Your task to perform on an android device: Go to wifi settings Image 0: 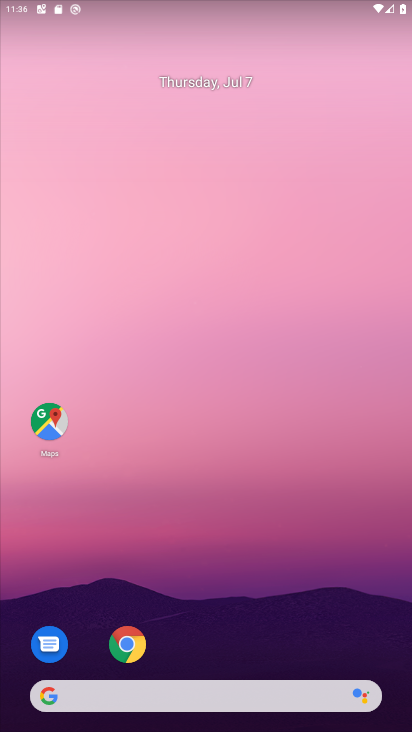
Step 0: drag from (34, 666) to (153, 30)
Your task to perform on an android device: Go to wifi settings Image 1: 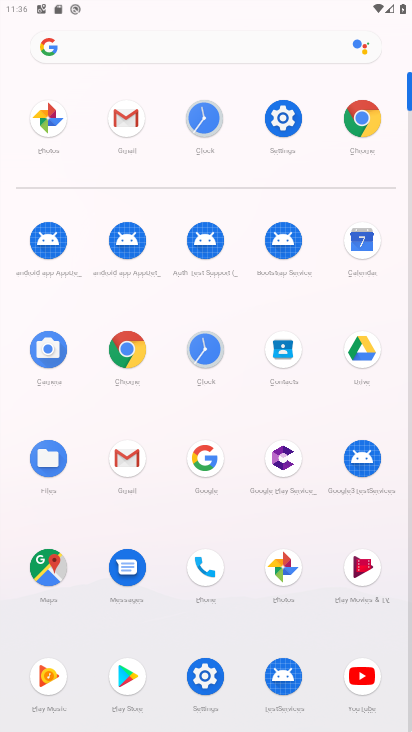
Step 1: click (205, 648)
Your task to perform on an android device: Go to wifi settings Image 2: 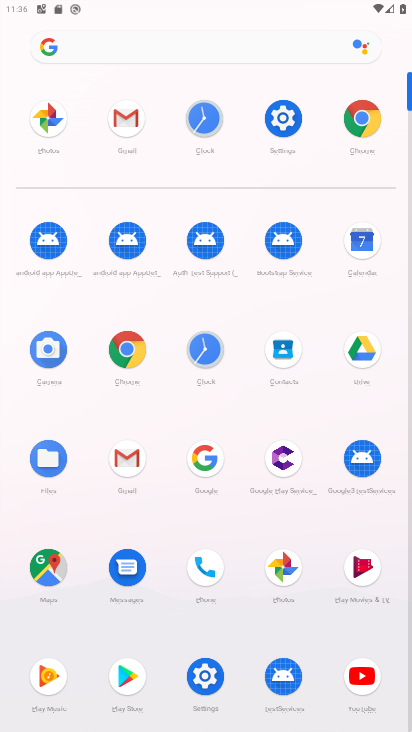
Step 2: click (206, 679)
Your task to perform on an android device: Go to wifi settings Image 3: 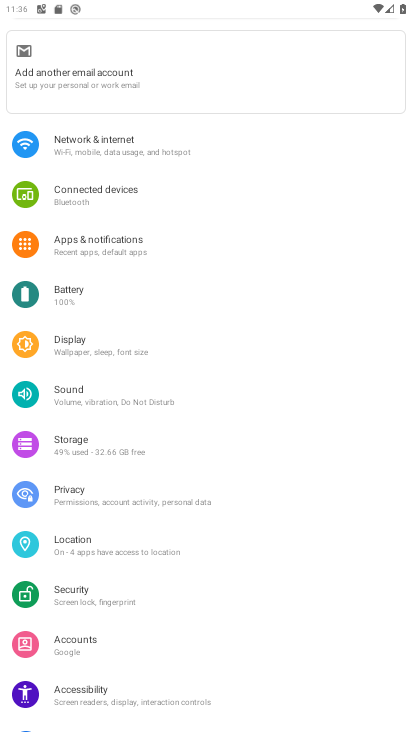
Step 3: click (107, 148)
Your task to perform on an android device: Go to wifi settings Image 4: 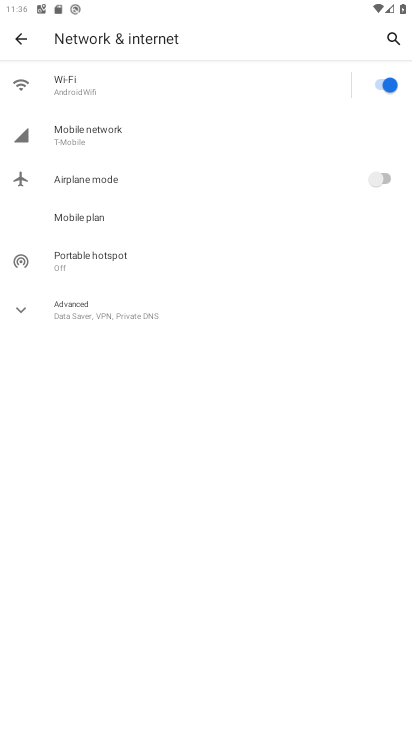
Step 4: click (58, 76)
Your task to perform on an android device: Go to wifi settings Image 5: 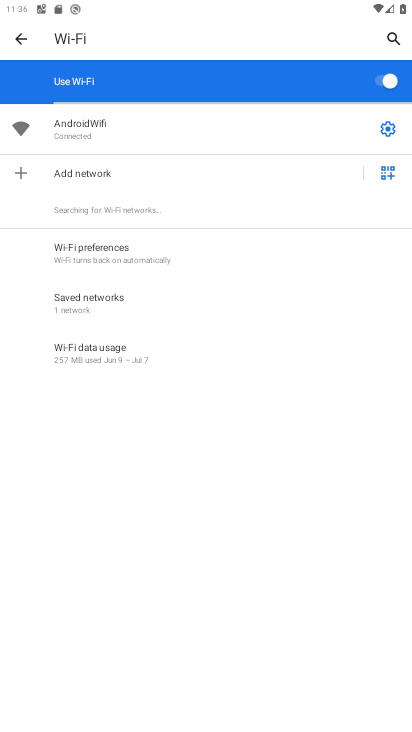
Step 5: task complete